Your task to perform on an android device: Open the map Image 0: 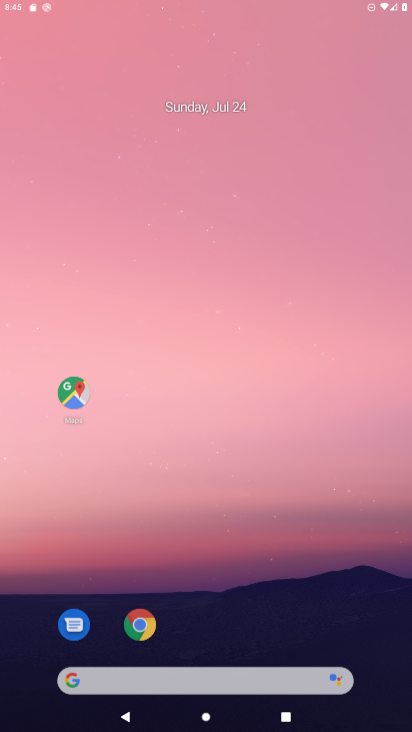
Step 0: drag from (222, 159) to (183, 35)
Your task to perform on an android device: Open the map Image 1: 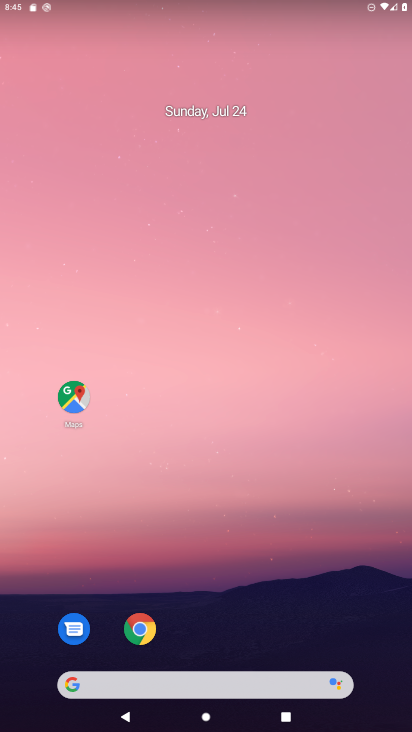
Step 1: drag from (330, 588) to (147, 3)
Your task to perform on an android device: Open the map Image 2: 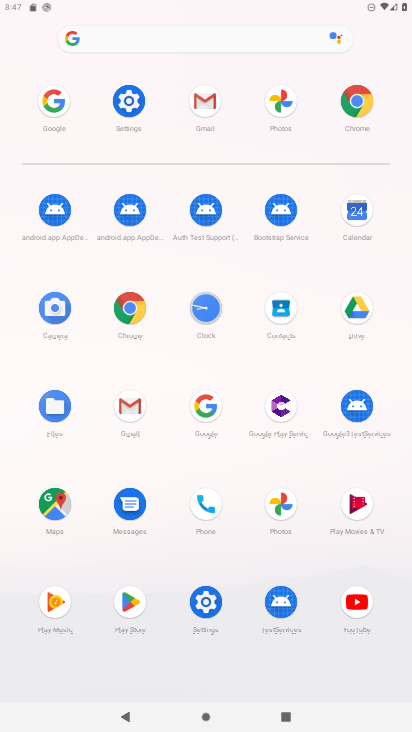
Step 2: click (47, 502)
Your task to perform on an android device: Open the map Image 3: 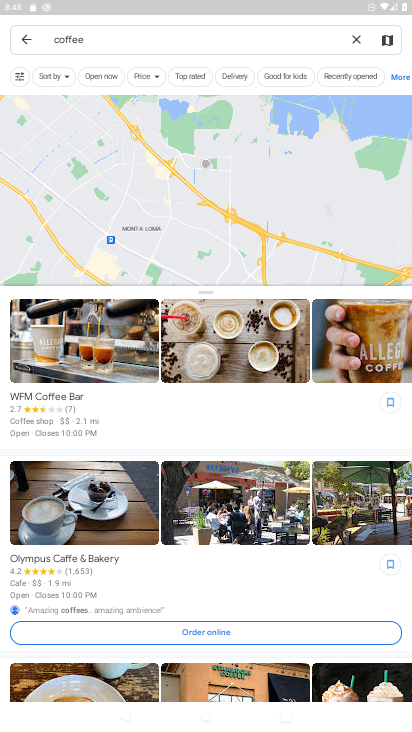
Step 3: click (356, 40)
Your task to perform on an android device: Open the map Image 4: 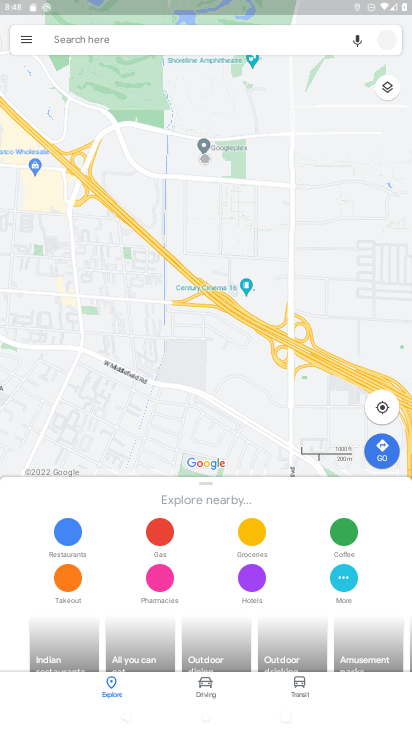
Step 4: task complete